Your task to perform on an android device: open wifi settings Image 0: 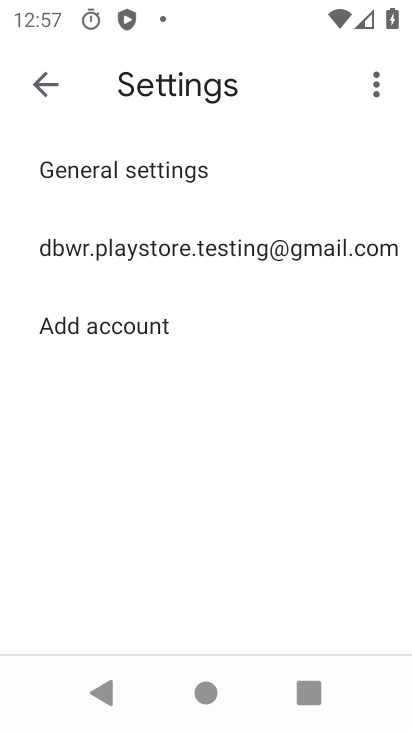
Step 0: press home button
Your task to perform on an android device: open wifi settings Image 1: 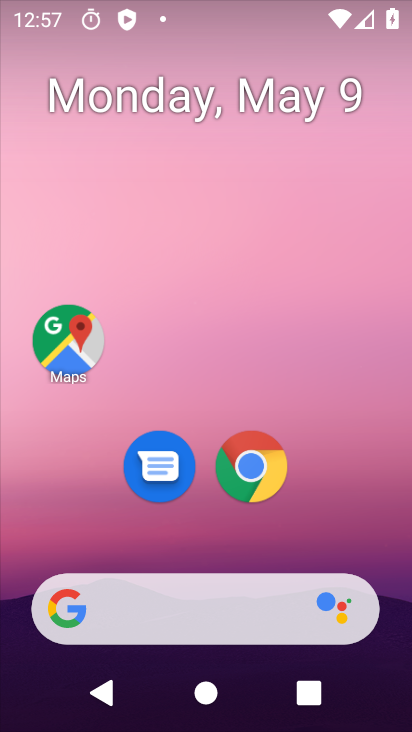
Step 1: drag from (290, 640) to (293, 196)
Your task to perform on an android device: open wifi settings Image 2: 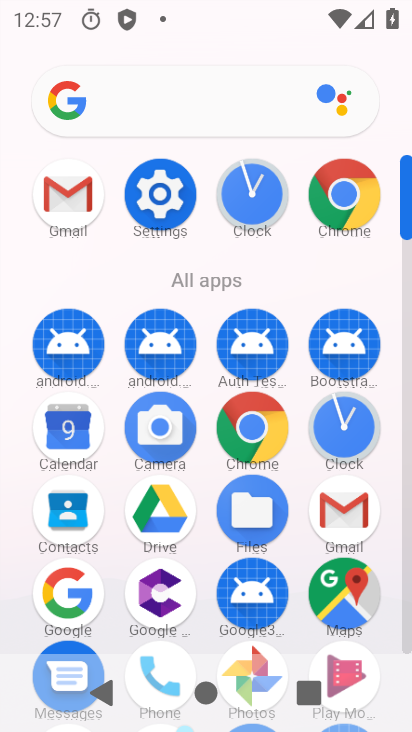
Step 2: click (160, 182)
Your task to perform on an android device: open wifi settings Image 3: 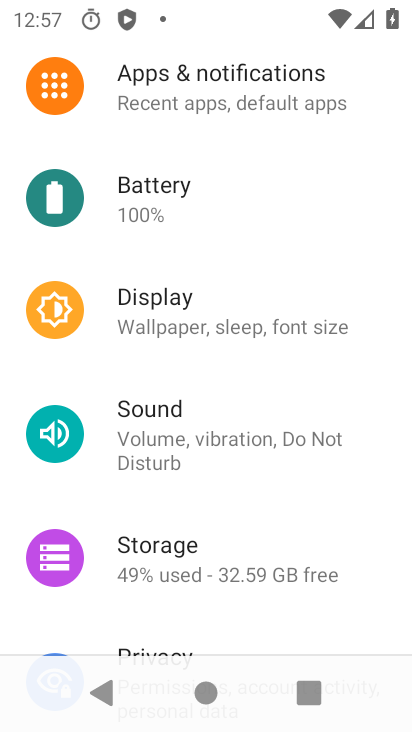
Step 3: drag from (180, 304) to (96, 725)
Your task to perform on an android device: open wifi settings Image 4: 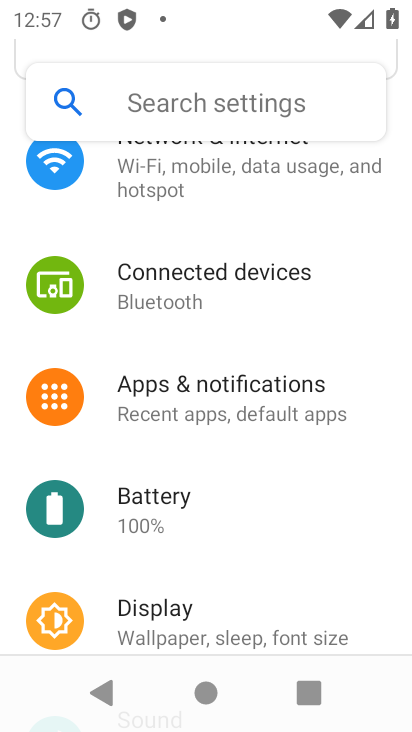
Step 4: drag from (152, 414) to (95, 609)
Your task to perform on an android device: open wifi settings Image 5: 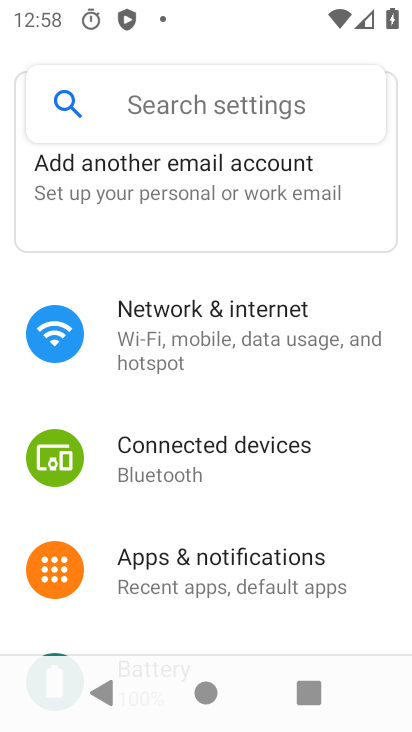
Step 5: drag from (148, 407) to (110, 559)
Your task to perform on an android device: open wifi settings Image 6: 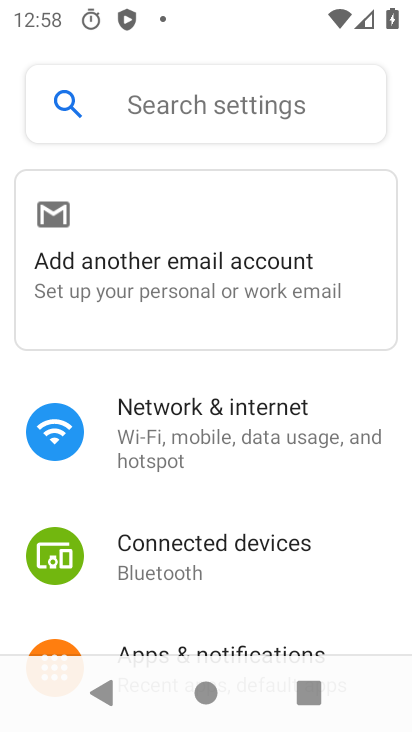
Step 6: click (181, 439)
Your task to perform on an android device: open wifi settings Image 7: 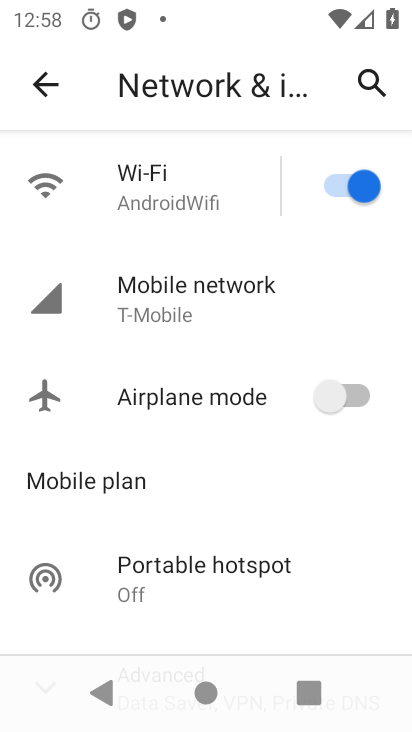
Step 7: click (165, 198)
Your task to perform on an android device: open wifi settings Image 8: 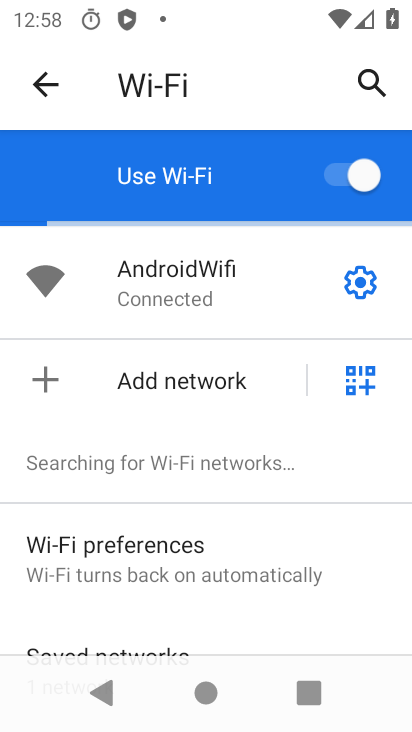
Step 8: task complete